Your task to perform on an android device: Open wifi settings Image 0: 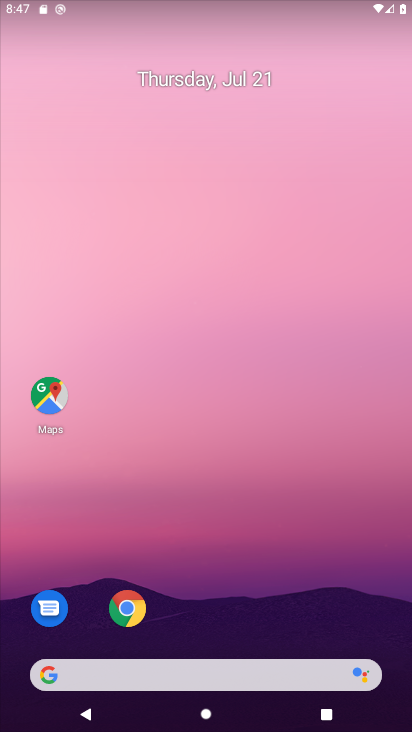
Step 0: drag from (179, 474) to (193, 36)
Your task to perform on an android device: Open wifi settings Image 1: 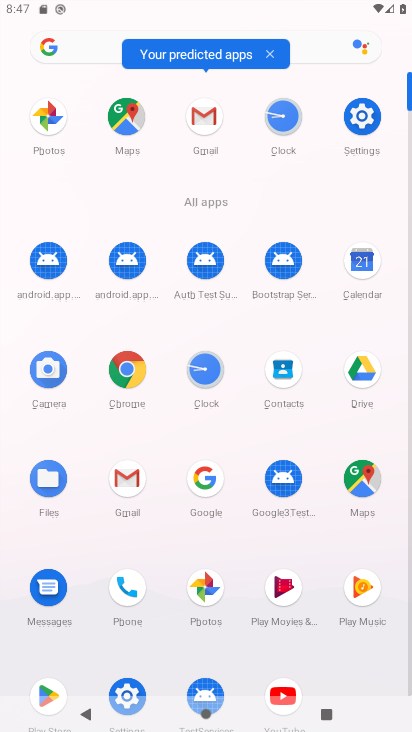
Step 1: click (361, 145)
Your task to perform on an android device: Open wifi settings Image 2: 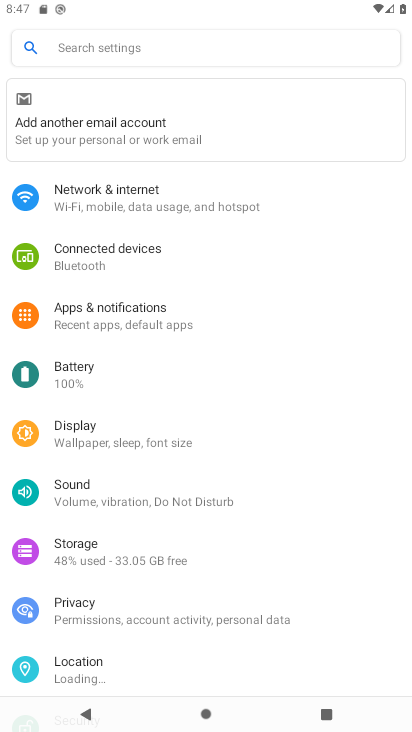
Step 2: click (131, 199)
Your task to perform on an android device: Open wifi settings Image 3: 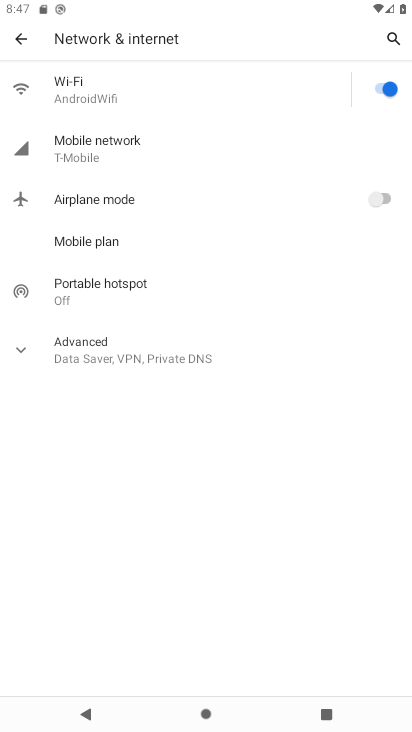
Step 3: click (77, 81)
Your task to perform on an android device: Open wifi settings Image 4: 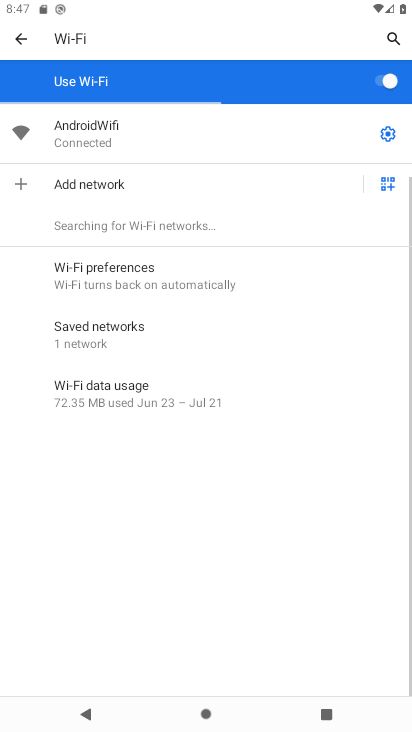
Step 4: task complete